Your task to perform on an android device: all mails in gmail Image 0: 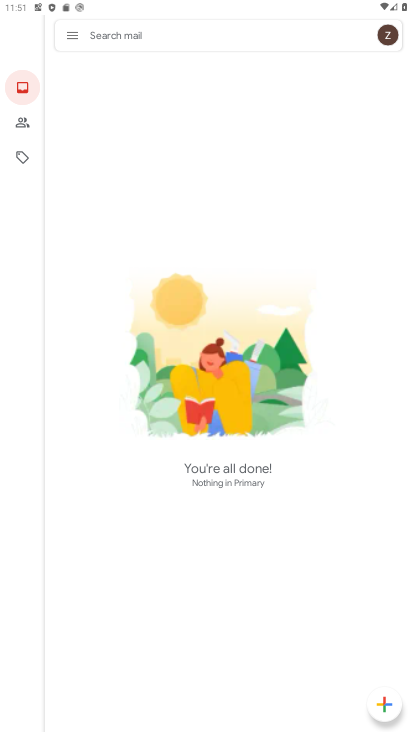
Step 0: press home button
Your task to perform on an android device: all mails in gmail Image 1: 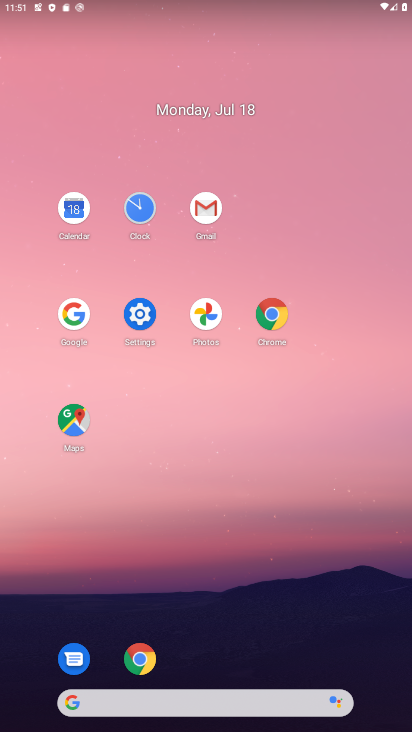
Step 1: click (213, 205)
Your task to perform on an android device: all mails in gmail Image 2: 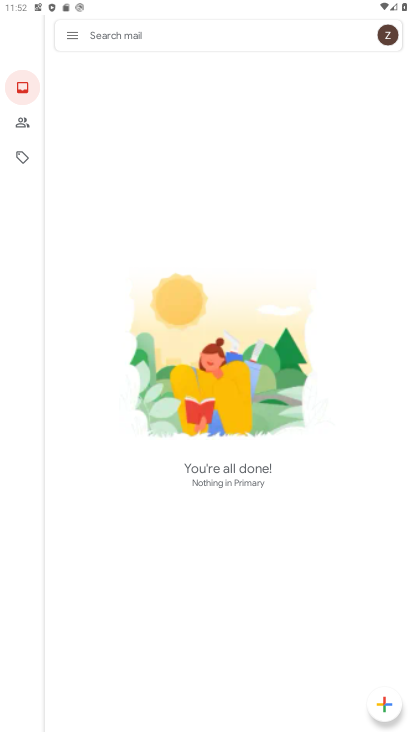
Step 2: click (66, 30)
Your task to perform on an android device: all mails in gmail Image 3: 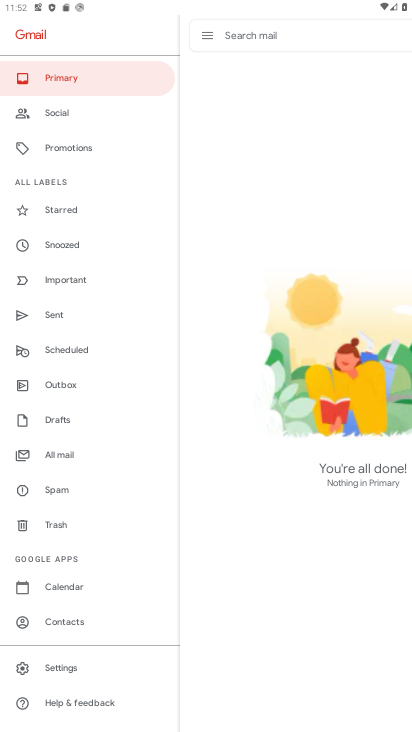
Step 3: click (65, 458)
Your task to perform on an android device: all mails in gmail Image 4: 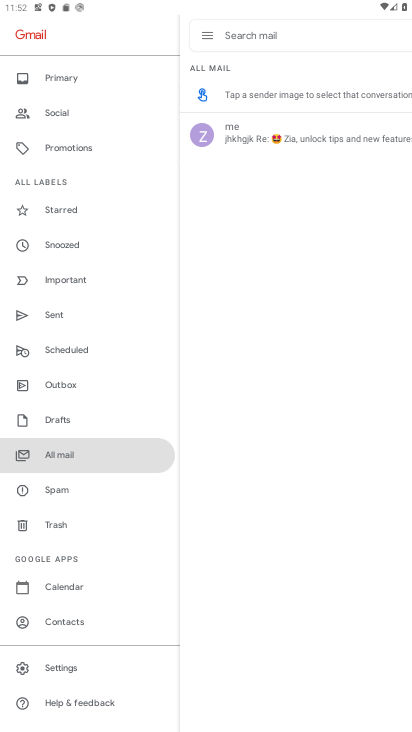
Step 4: task complete